Your task to perform on an android device: Show me the alarms in the clock app Image 0: 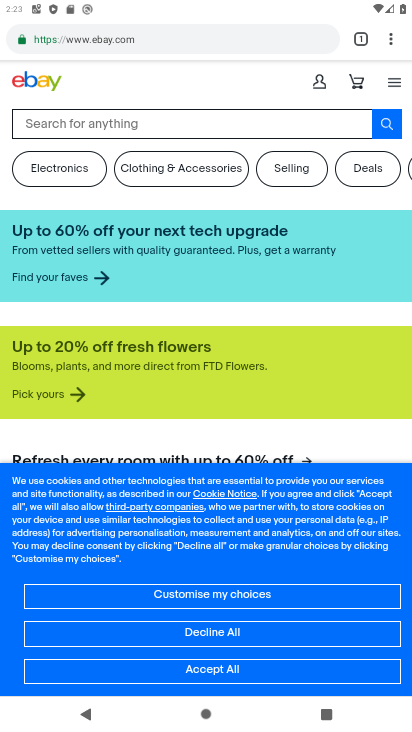
Step 0: press home button
Your task to perform on an android device: Show me the alarms in the clock app Image 1: 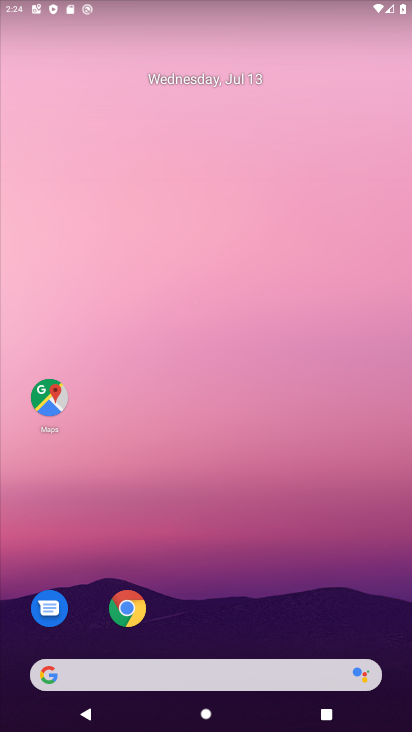
Step 1: drag from (172, 589) to (234, 159)
Your task to perform on an android device: Show me the alarms in the clock app Image 2: 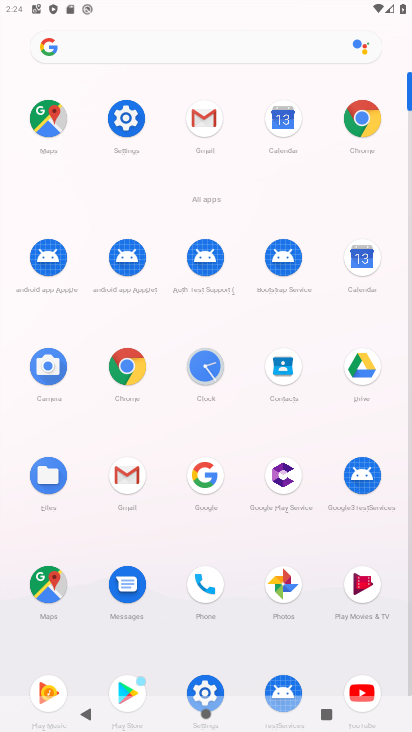
Step 2: click (201, 367)
Your task to perform on an android device: Show me the alarms in the clock app Image 3: 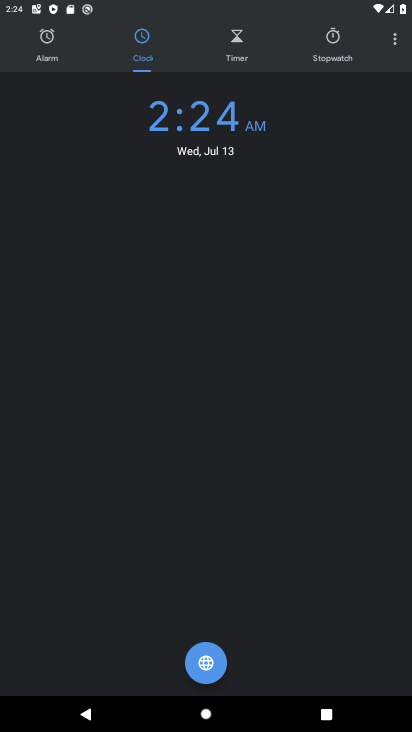
Step 3: click (44, 45)
Your task to perform on an android device: Show me the alarms in the clock app Image 4: 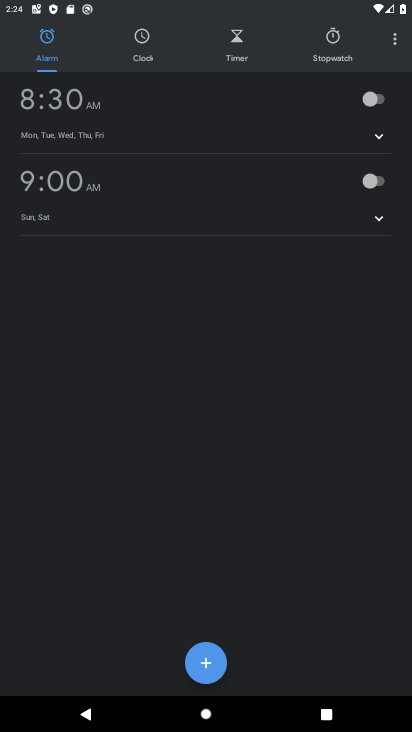
Step 4: task complete